Your task to perform on an android device: Go to sound settings Image 0: 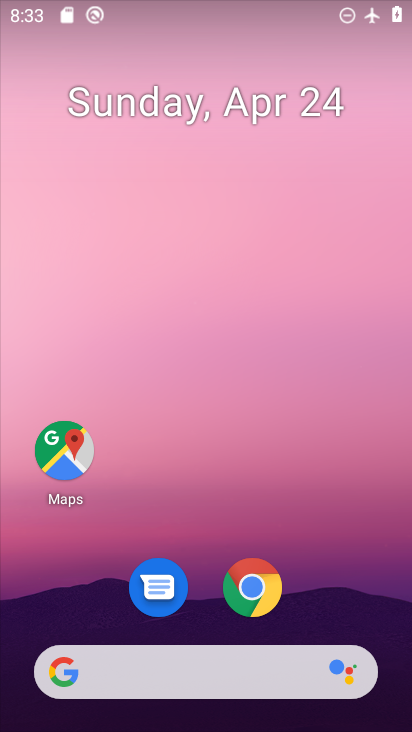
Step 0: drag from (374, 461) to (339, 116)
Your task to perform on an android device: Go to sound settings Image 1: 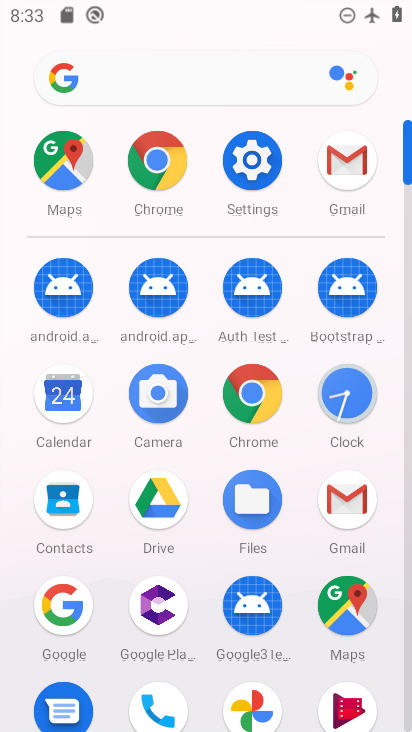
Step 1: click (243, 162)
Your task to perform on an android device: Go to sound settings Image 2: 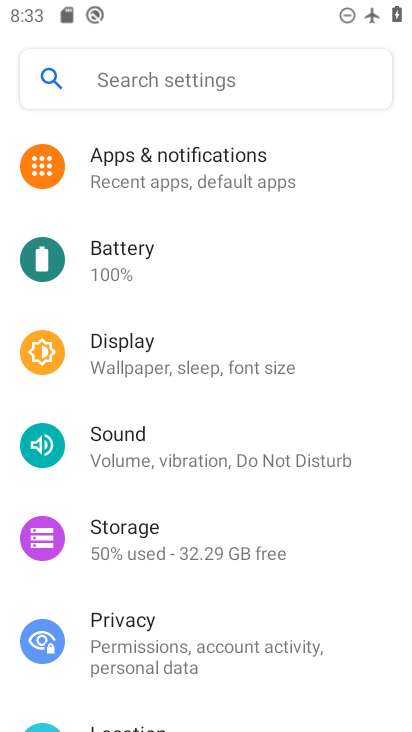
Step 2: click (199, 453)
Your task to perform on an android device: Go to sound settings Image 3: 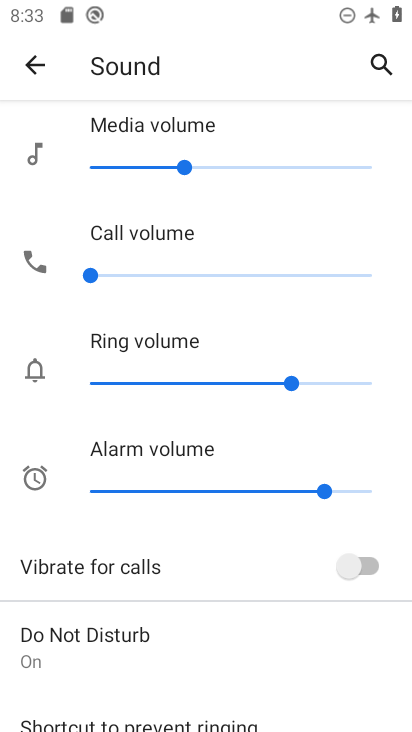
Step 3: task complete